Your task to perform on an android device: Search for the best rated headphones on Amazon Image 0: 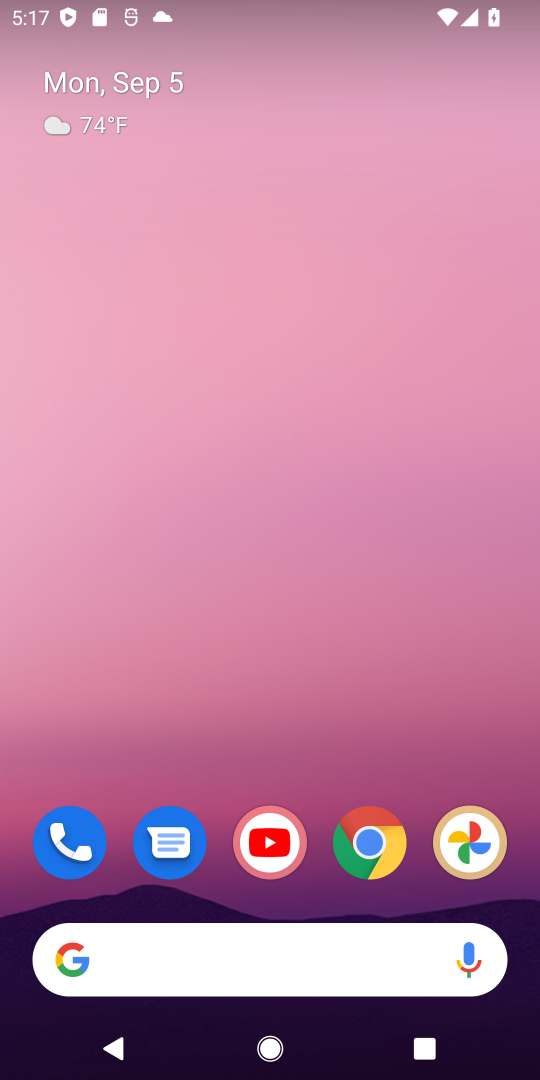
Step 0: click (368, 844)
Your task to perform on an android device: Search for the best rated headphones on Amazon Image 1: 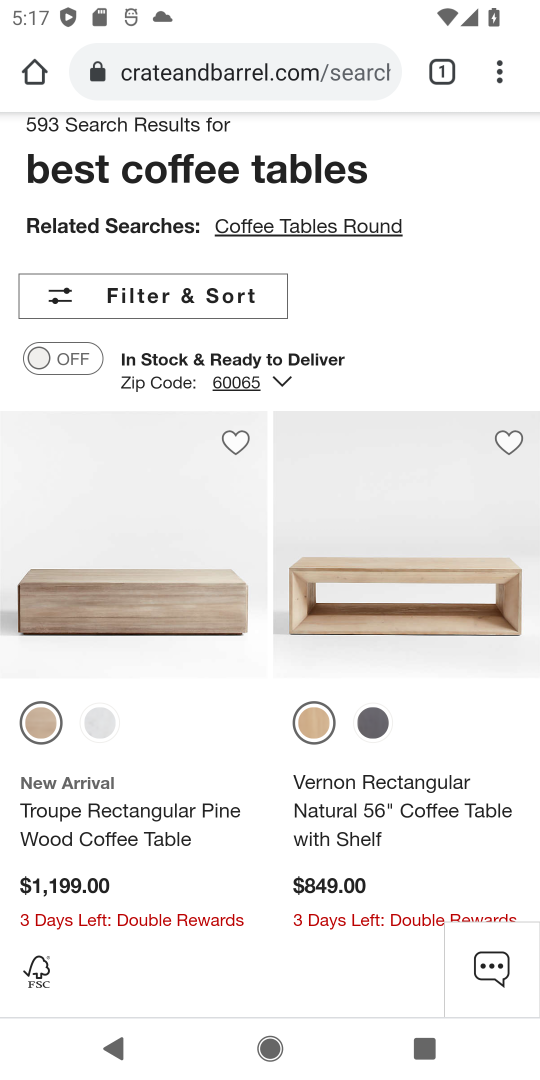
Step 1: click (336, 63)
Your task to perform on an android device: Search for the best rated headphones on Amazon Image 2: 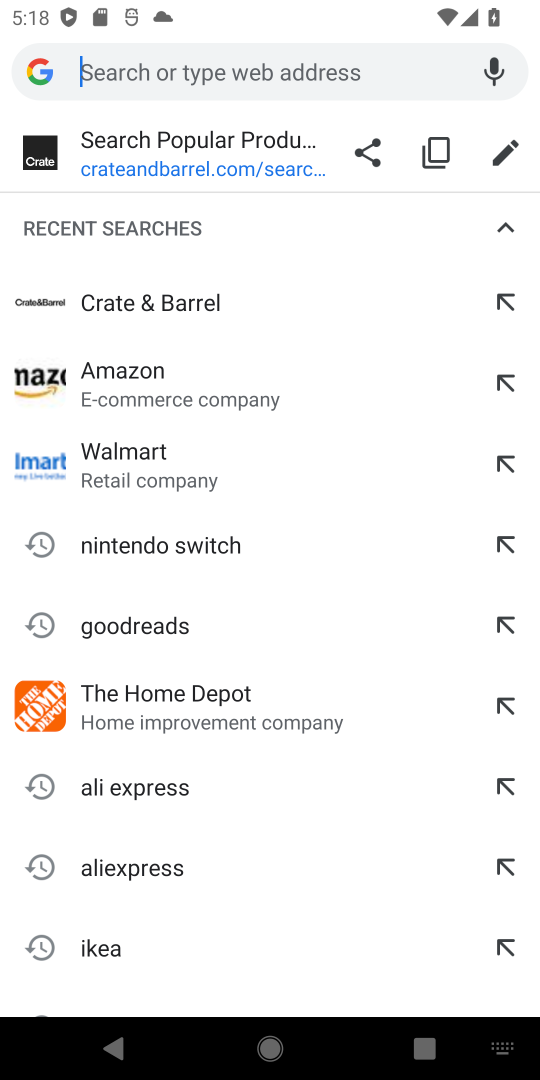
Step 2: type "Amazon"
Your task to perform on an android device: Search for the best rated headphones on Amazon Image 3: 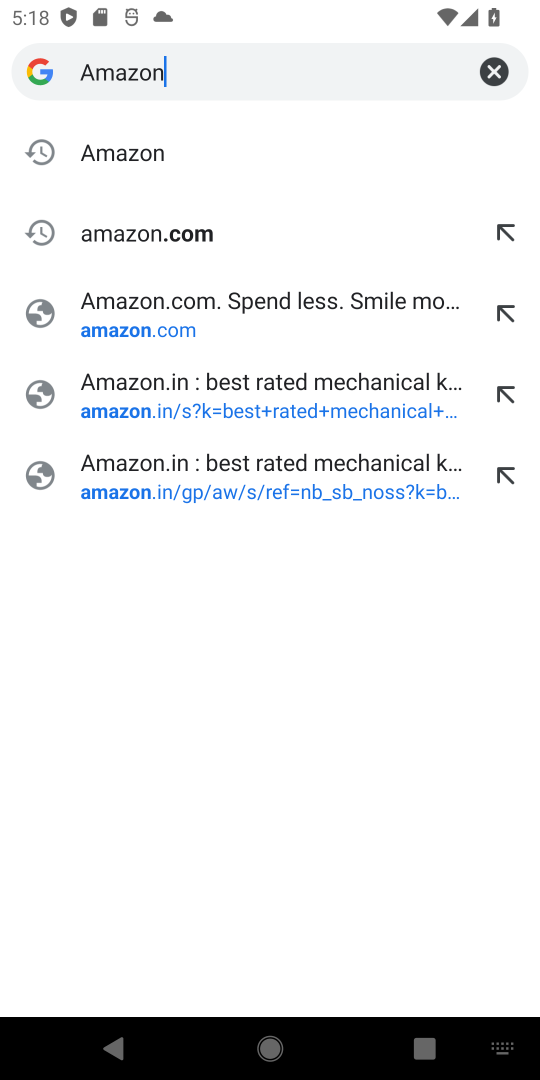
Step 3: click (137, 152)
Your task to perform on an android device: Search for the best rated headphones on Amazon Image 4: 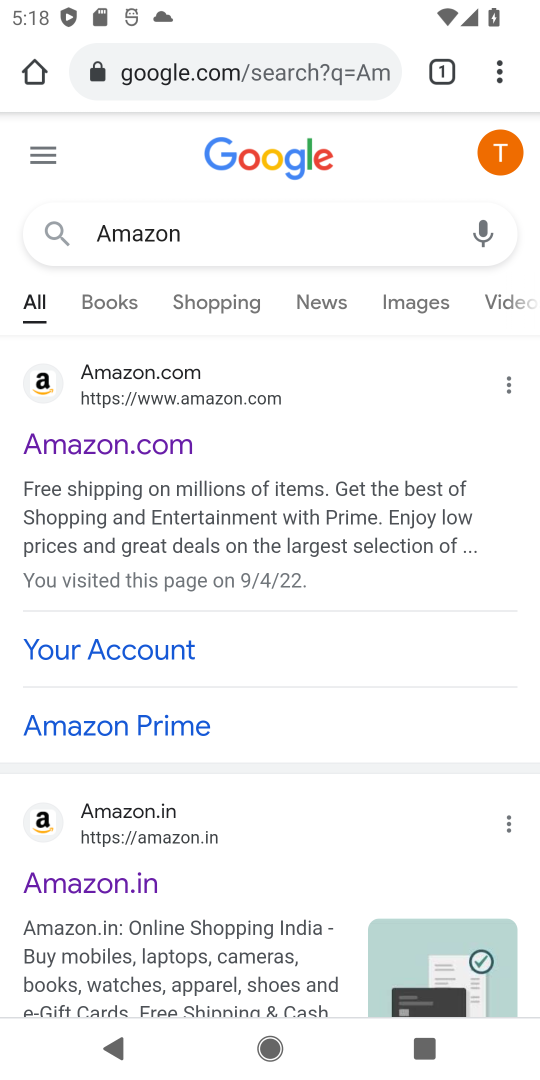
Step 4: click (159, 887)
Your task to perform on an android device: Search for the best rated headphones on Amazon Image 5: 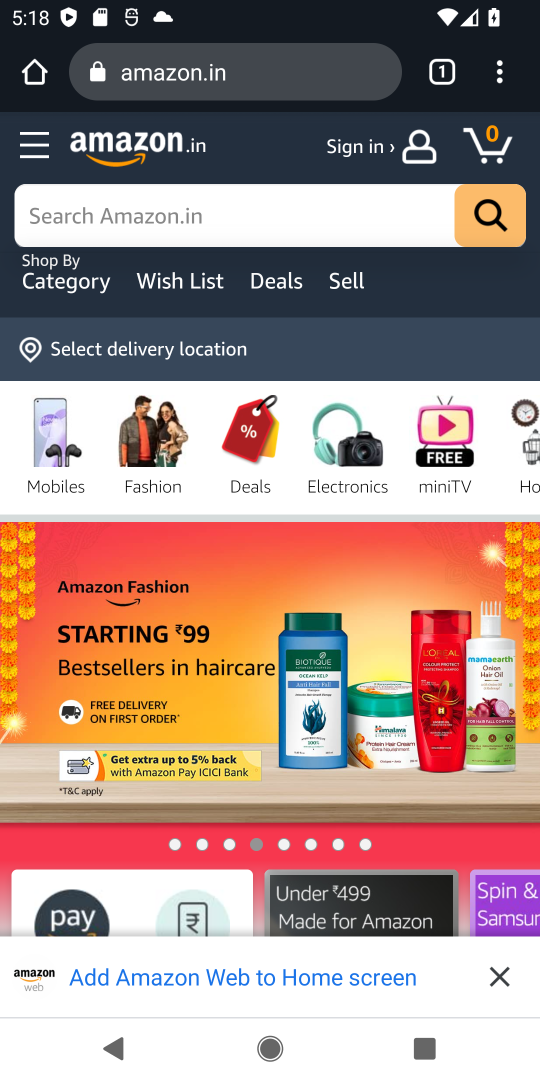
Step 5: click (281, 210)
Your task to perform on an android device: Search for the best rated headphones on Amazon Image 6: 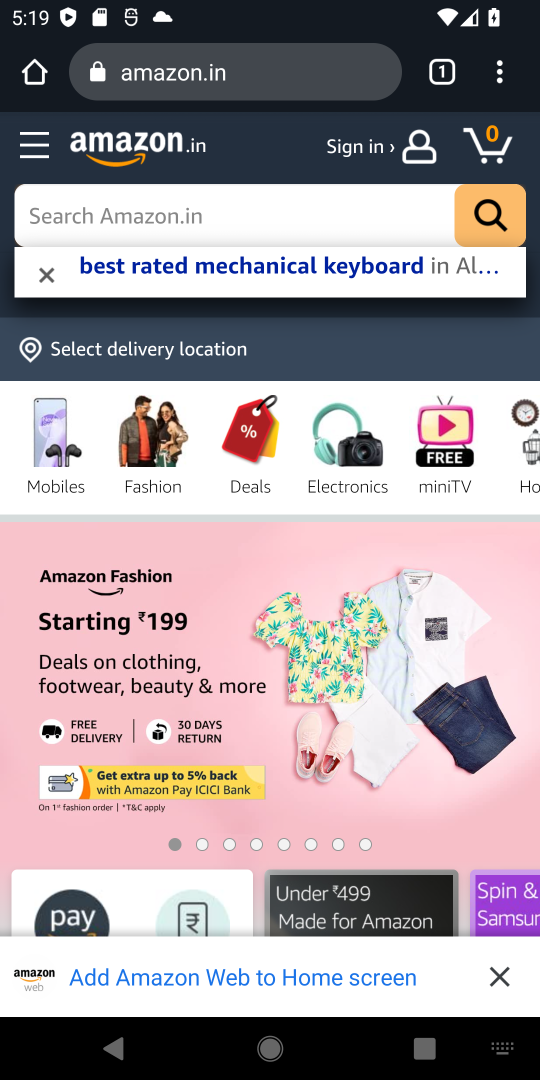
Step 6: click (285, 216)
Your task to perform on an android device: Search for the best rated headphones on Amazon Image 7: 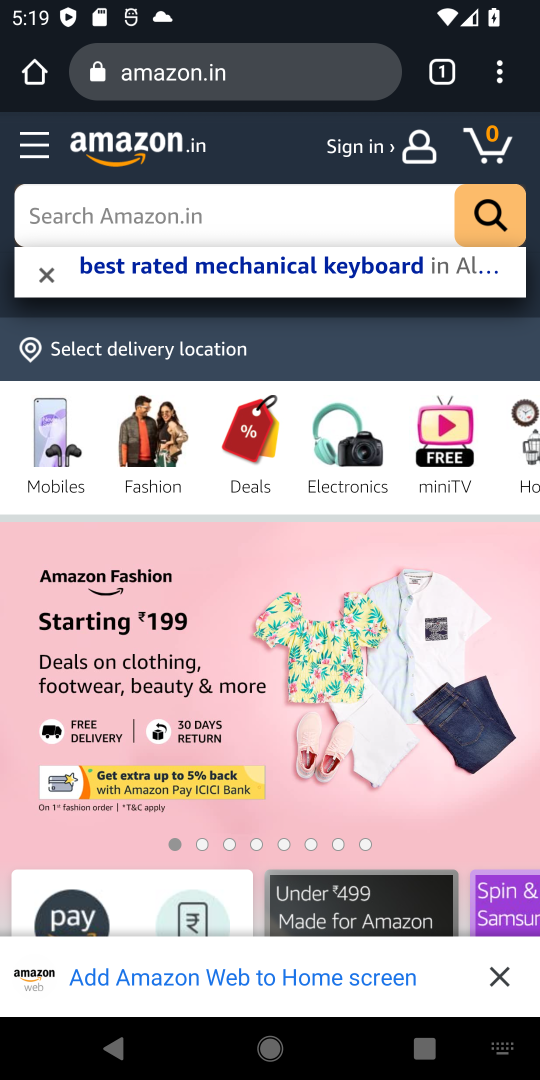
Step 7: type "best rated headphones"
Your task to perform on an android device: Search for the best rated headphones on Amazon Image 8: 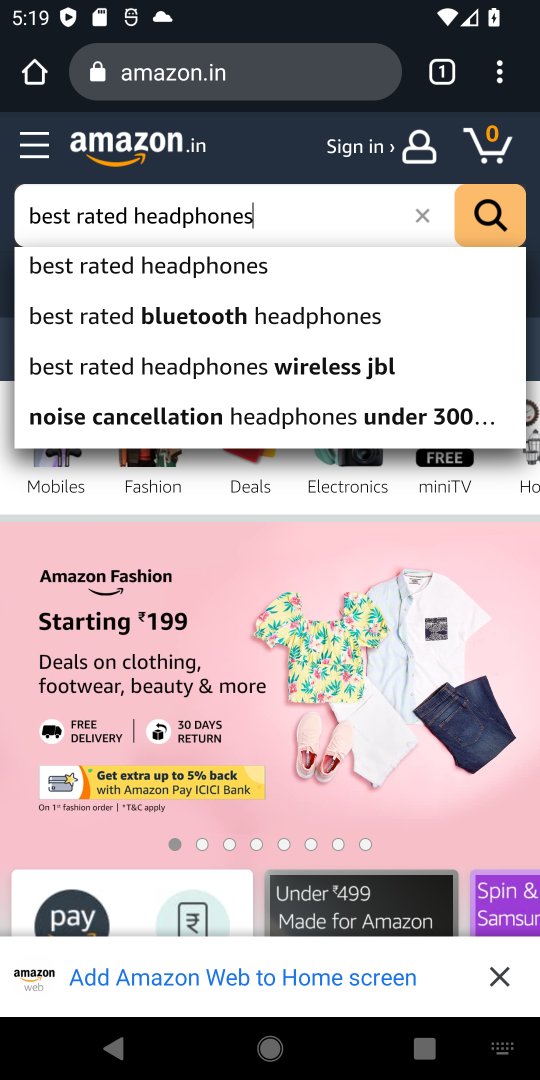
Step 8: click (485, 220)
Your task to perform on an android device: Search for the best rated headphones on Amazon Image 9: 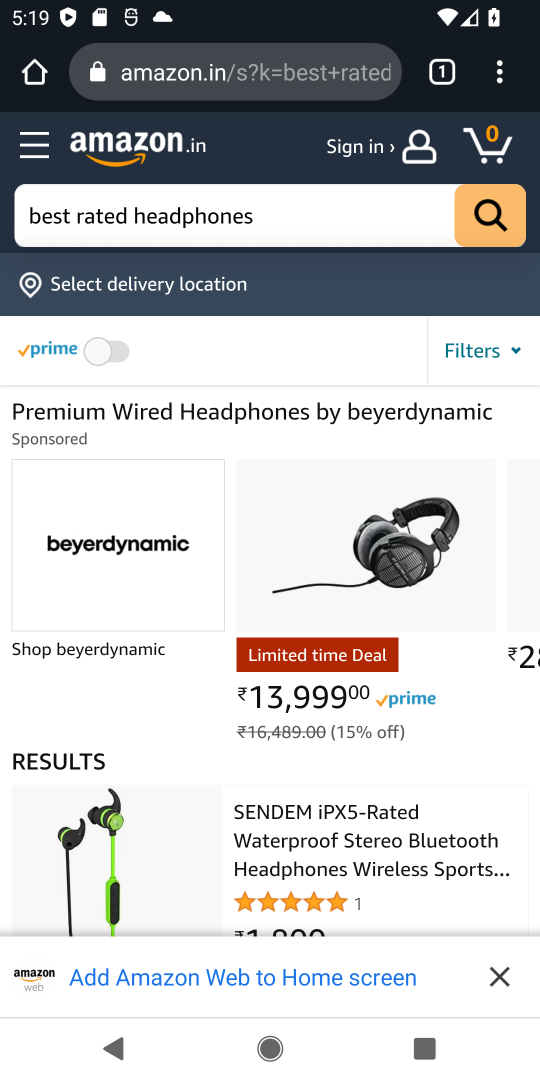
Step 9: task complete